Your task to perform on an android device: turn on priority inbox in the gmail app Image 0: 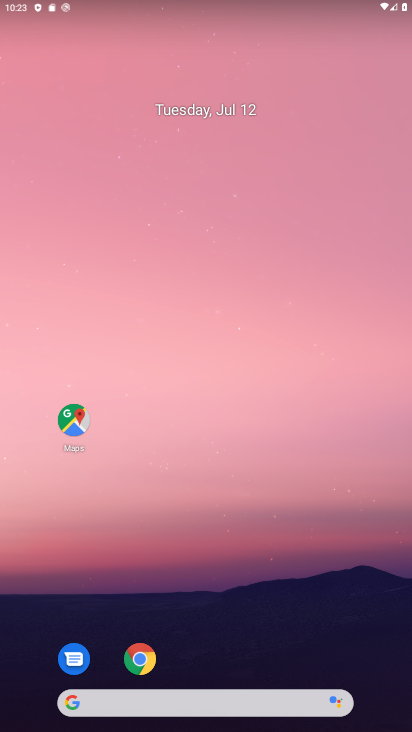
Step 0: click (227, 169)
Your task to perform on an android device: turn on priority inbox in the gmail app Image 1: 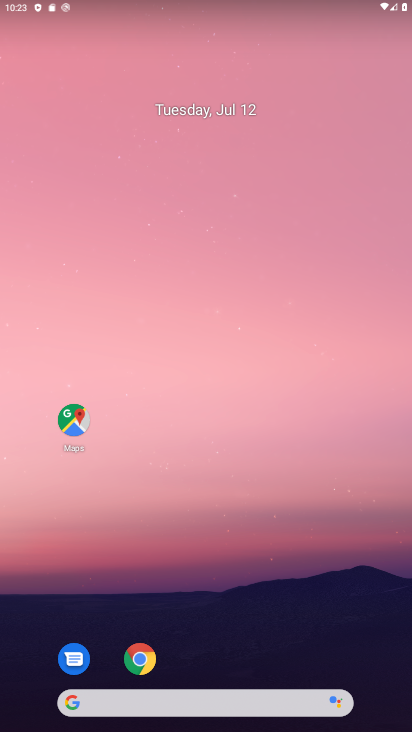
Step 1: click (202, 126)
Your task to perform on an android device: turn on priority inbox in the gmail app Image 2: 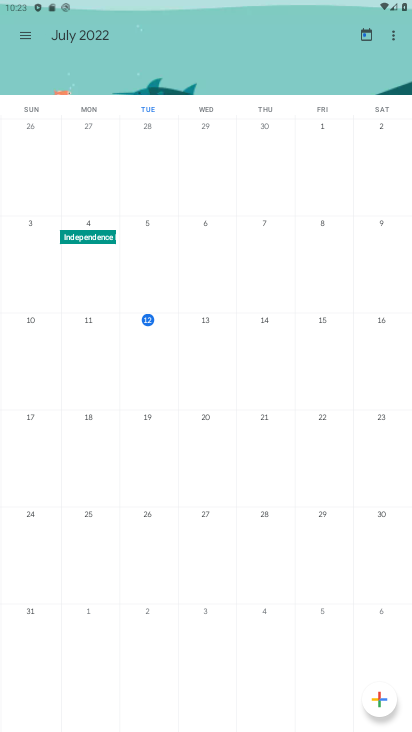
Step 2: press home button
Your task to perform on an android device: turn on priority inbox in the gmail app Image 3: 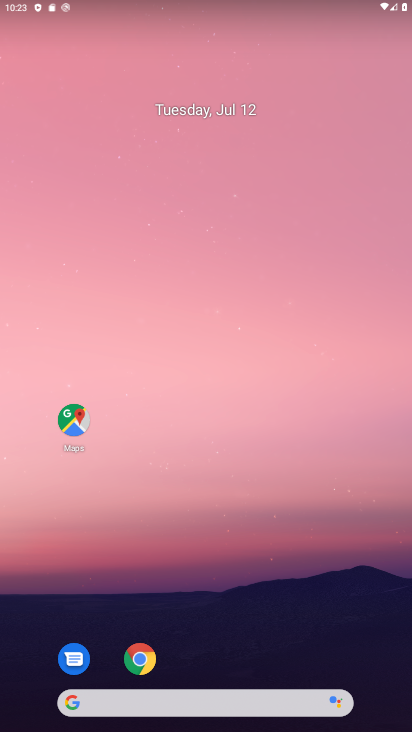
Step 3: drag from (163, 592) to (167, 312)
Your task to perform on an android device: turn on priority inbox in the gmail app Image 4: 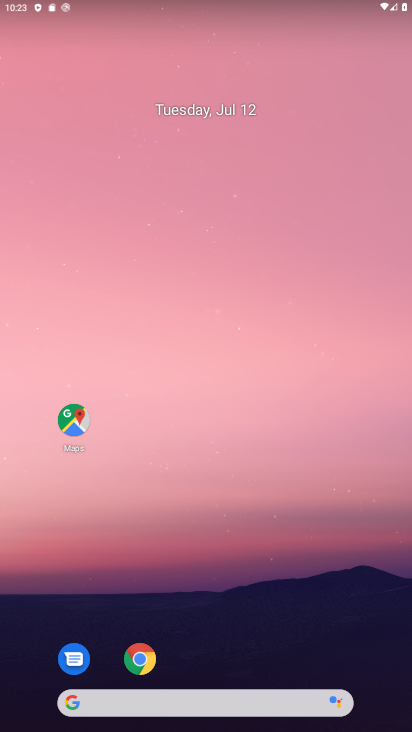
Step 4: click (189, 358)
Your task to perform on an android device: turn on priority inbox in the gmail app Image 5: 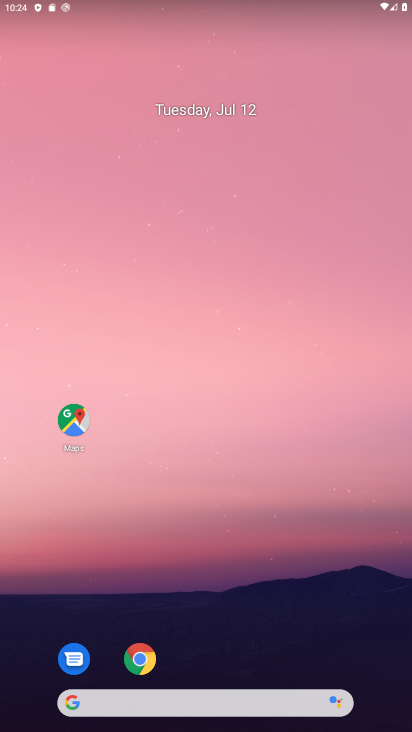
Step 5: drag from (181, 628) to (181, 230)
Your task to perform on an android device: turn on priority inbox in the gmail app Image 6: 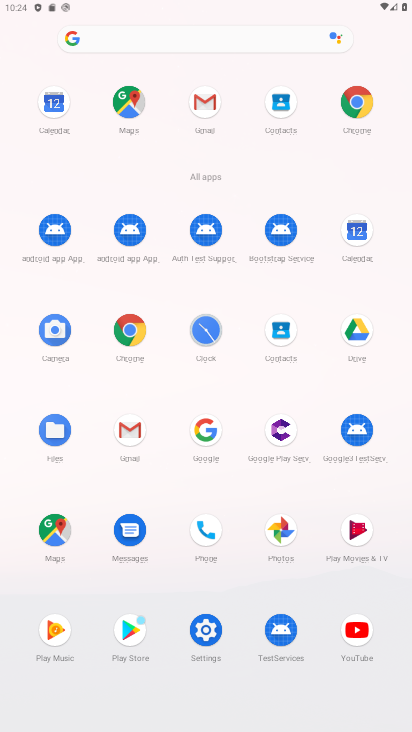
Step 6: click (206, 116)
Your task to perform on an android device: turn on priority inbox in the gmail app Image 7: 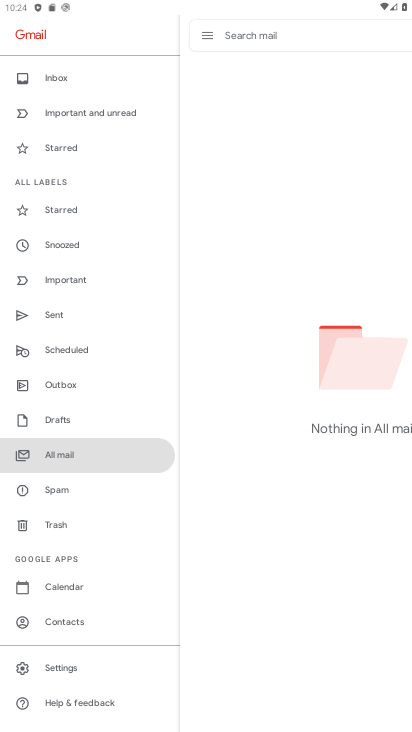
Step 7: click (51, 674)
Your task to perform on an android device: turn on priority inbox in the gmail app Image 8: 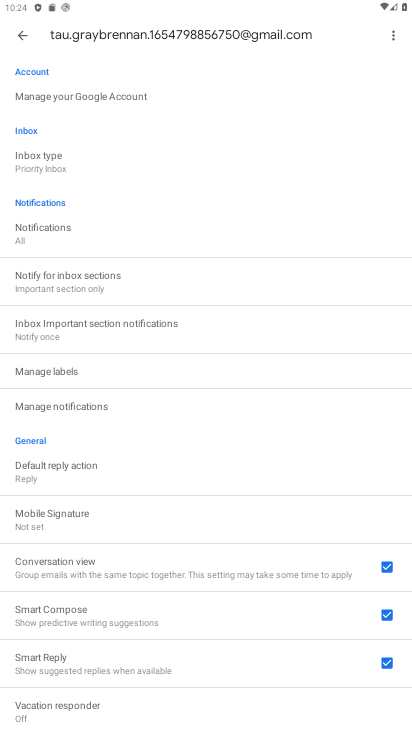
Step 8: task complete